Your task to perform on an android device: open chrome and create a bookmark for the current page Image 0: 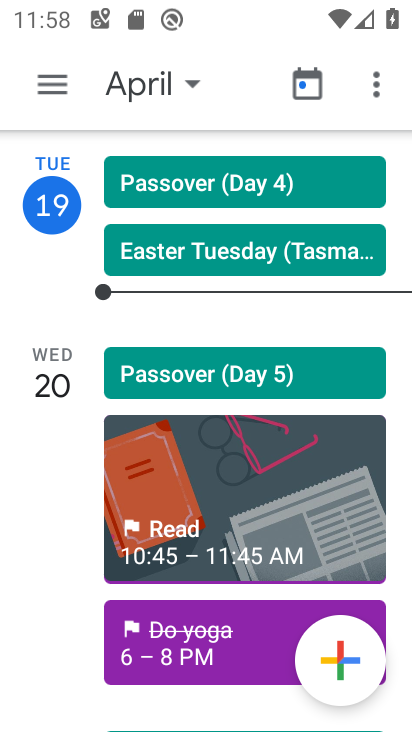
Step 0: press home button
Your task to perform on an android device: open chrome and create a bookmark for the current page Image 1: 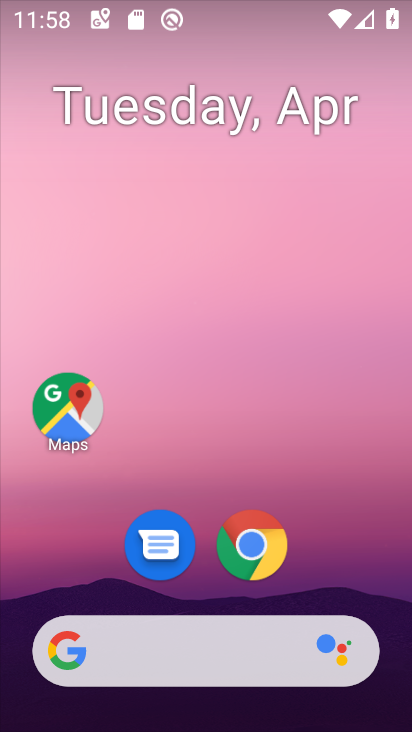
Step 1: click (270, 560)
Your task to perform on an android device: open chrome and create a bookmark for the current page Image 2: 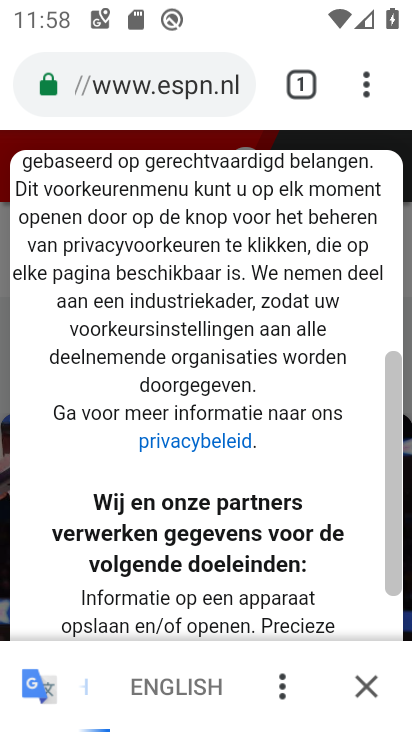
Step 2: drag from (370, 83) to (123, 325)
Your task to perform on an android device: open chrome and create a bookmark for the current page Image 3: 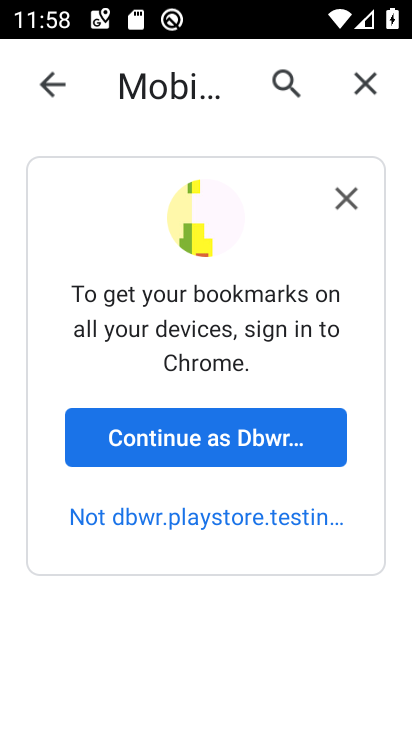
Step 3: click (179, 458)
Your task to perform on an android device: open chrome and create a bookmark for the current page Image 4: 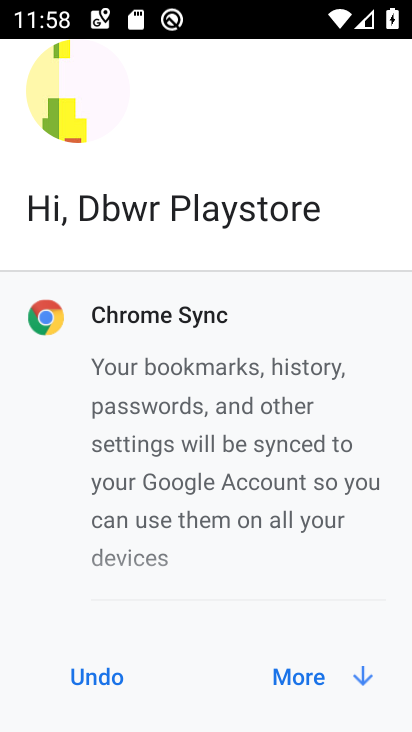
Step 4: click (315, 682)
Your task to perform on an android device: open chrome and create a bookmark for the current page Image 5: 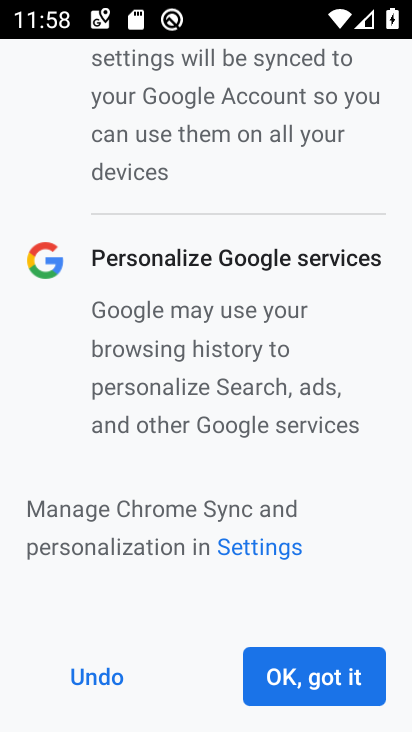
Step 5: task complete